Your task to perform on an android device: Go to Google Image 0: 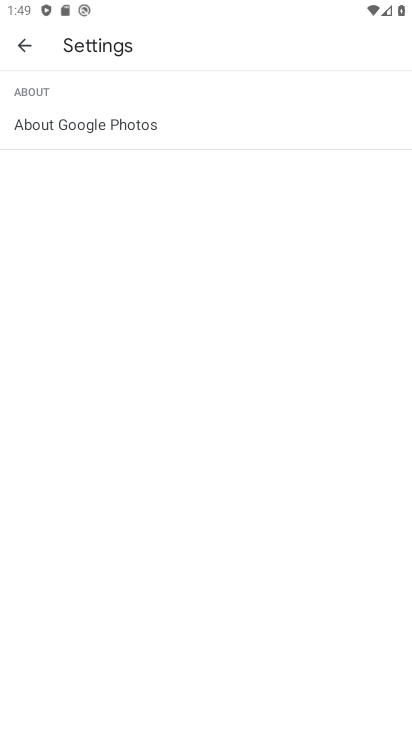
Step 0: press home button
Your task to perform on an android device: Go to Google Image 1: 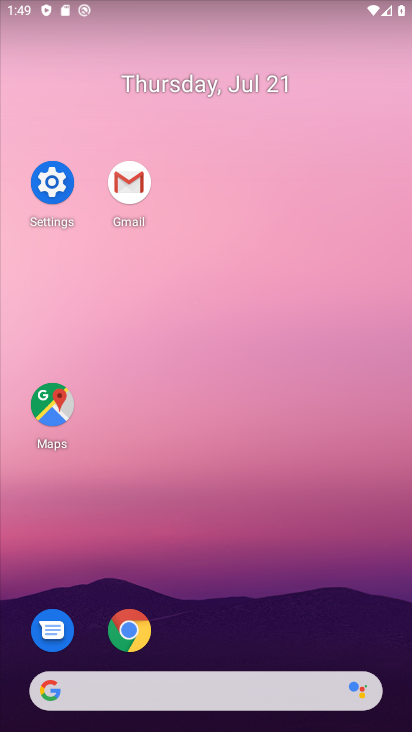
Step 1: drag from (287, 621) to (285, 227)
Your task to perform on an android device: Go to Google Image 2: 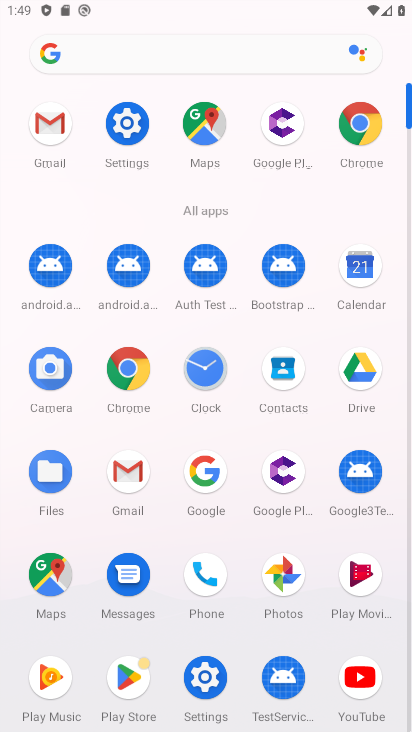
Step 2: click (209, 468)
Your task to perform on an android device: Go to Google Image 3: 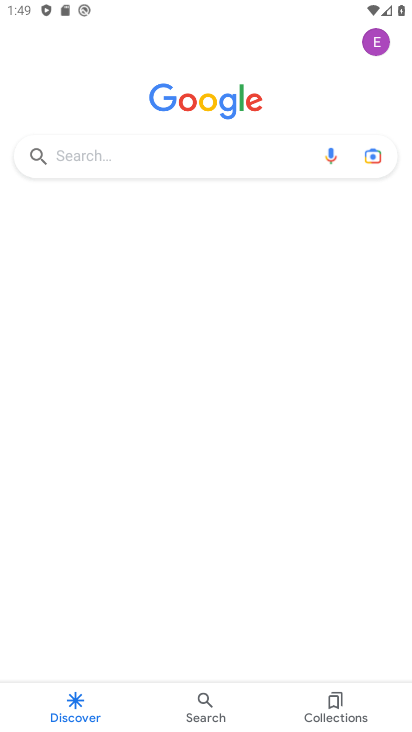
Step 3: task complete